Your task to perform on an android device: move an email to a new category in the gmail app Image 0: 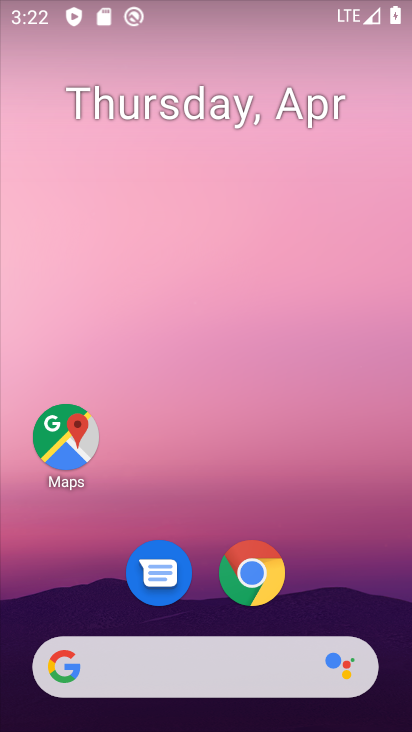
Step 0: drag from (349, 603) to (311, 51)
Your task to perform on an android device: move an email to a new category in the gmail app Image 1: 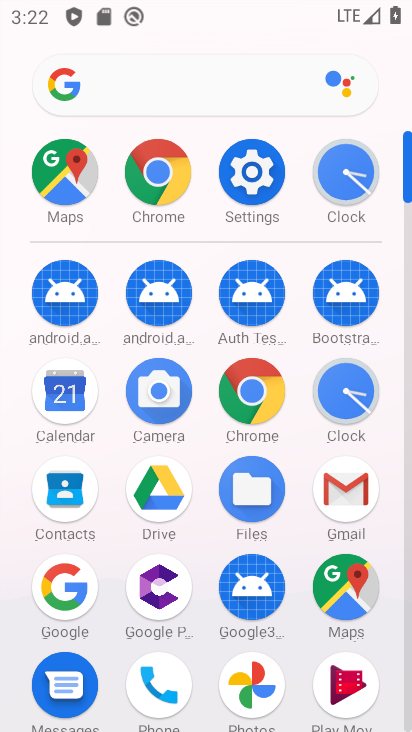
Step 1: click (327, 492)
Your task to perform on an android device: move an email to a new category in the gmail app Image 2: 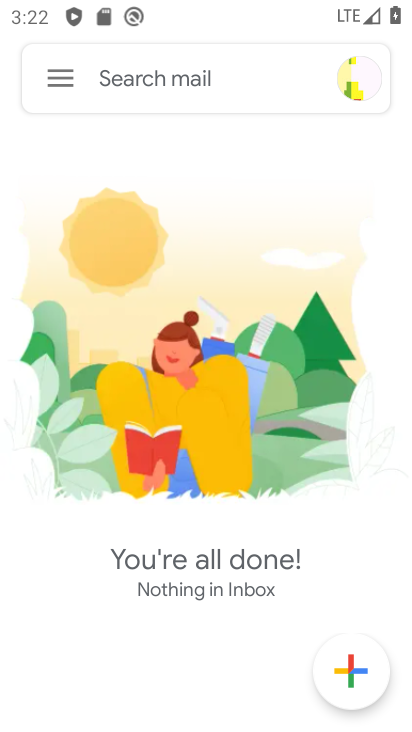
Step 2: click (63, 74)
Your task to perform on an android device: move an email to a new category in the gmail app Image 3: 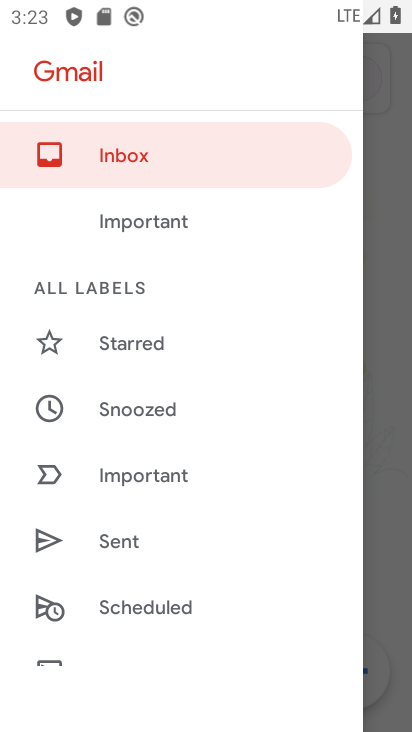
Step 3: click (105, 143)
Your task to perform on an android device: move an email to a new category in the gmail app Image 4: 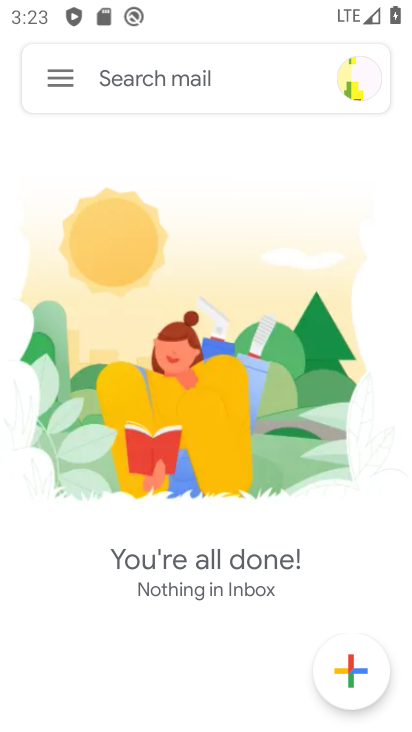
Step 4: task complete